Your task to perform on an android device: turn on improve location accuracy Image 0: 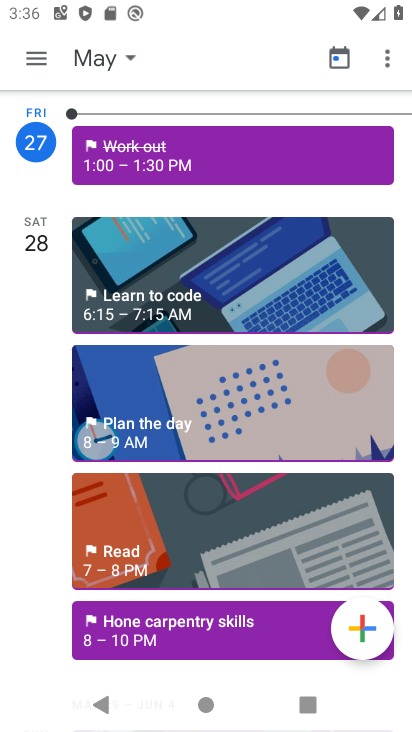
Step 0: press home button
Your task to perform on an android device: turn on improve location accuracy Image 1: 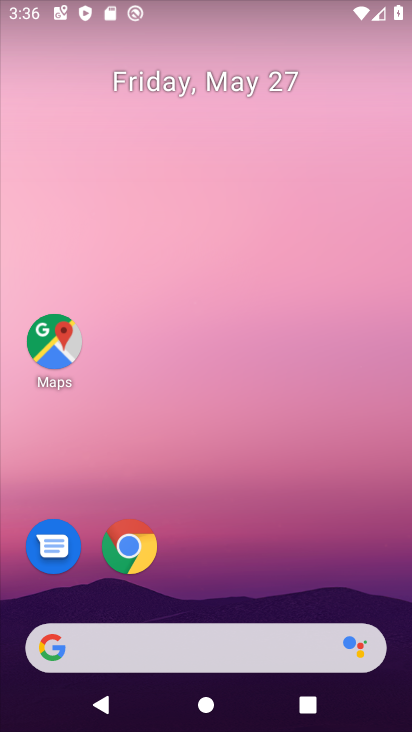
Step 1: drag from (401, 643) to (355, 115)
Your task to perform on an android device: turn on improve location accuracy Image 2: 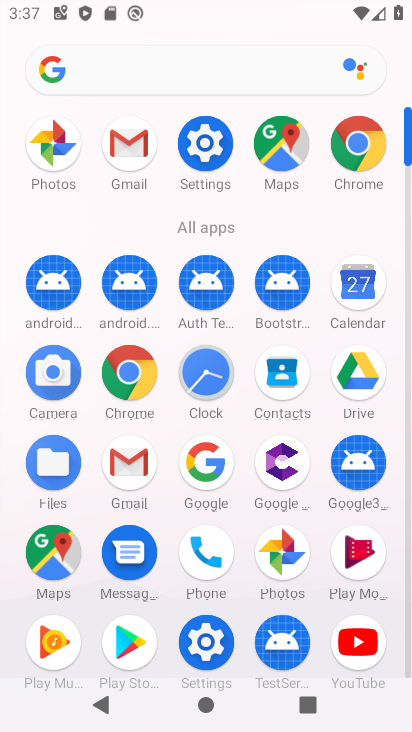
Step 2: click (203, 156)
Your task to perform on an android device: turn on improve location accuracy Image 3: 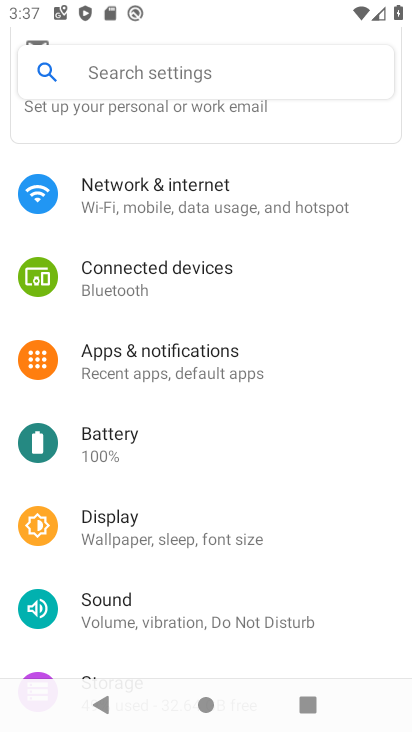
Step 3: drag from (325, 553) to (335, 285)
Your task to perform on an android device: turn on improve location accuracy Image 4: 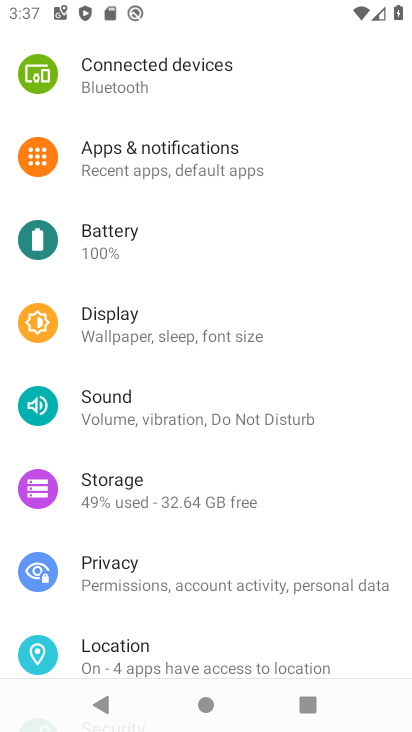
Step 4: drag from (364, 219) to (353, 451)
Your task to perform on an android device: turn on improve location accuracy Image 5: 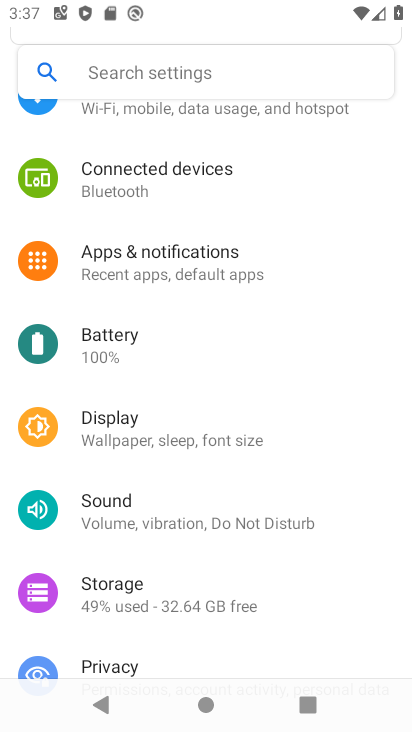
Step 5: drag from (260, 653) to (298, 322)
Your task to perform on an android device: turn on improve location accuracy Image 6: 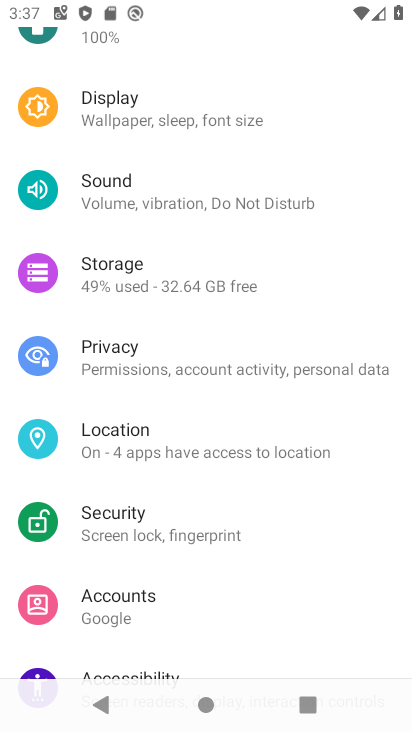
Step 6: click (99, 430)
Your task to perform on an android device: turn on improve location accuracy Image 7: 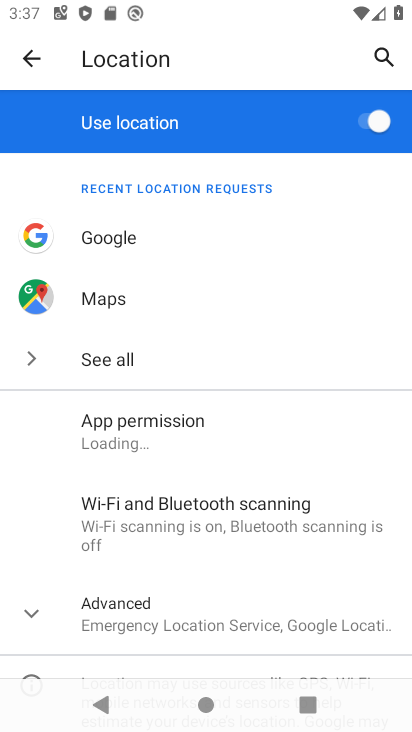
Step 7: drag from (307, 584) to (316, 309)
Your task to perform on an android device: turn on improve location accuracy Image 8: 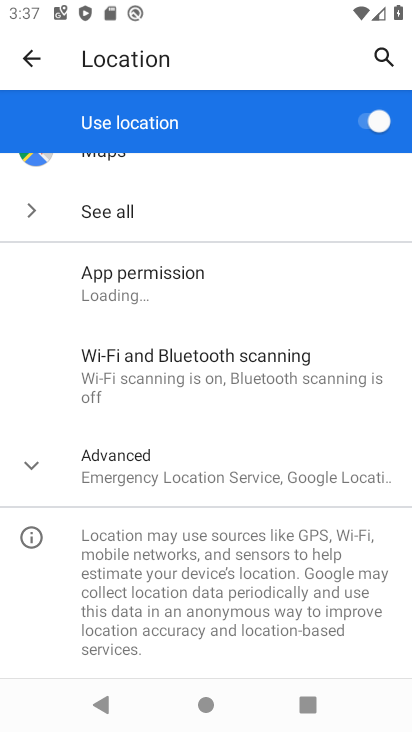
Step 8: click (30, 460)
Your task to perform on an android device: turn on improve location accuracy Image 9: 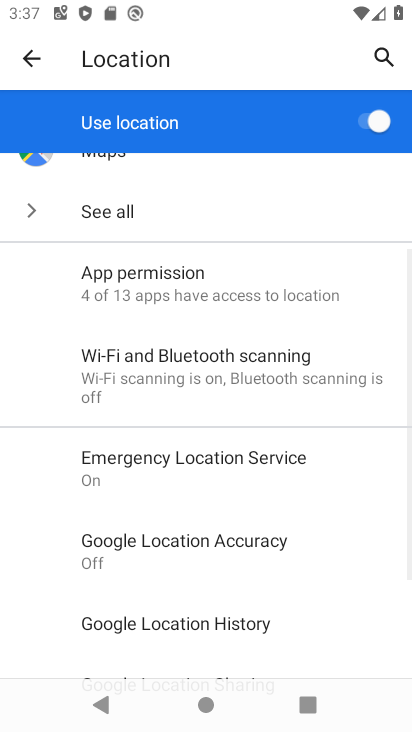
Step 9: drag from (316, 619) to (311, 341)
Your task to perform on an android device: turn on improve location accuracy Image 10: 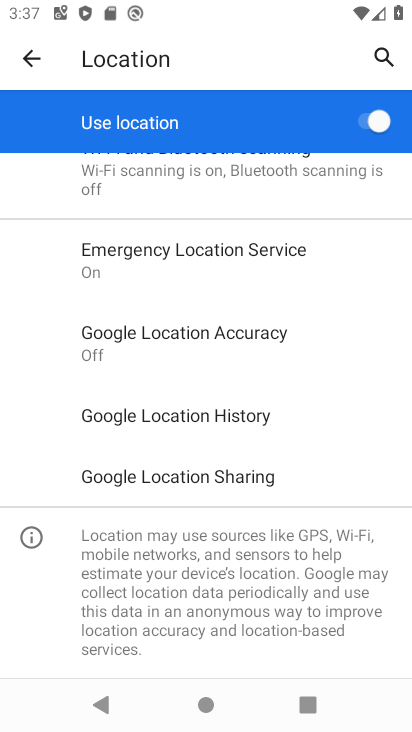
Step 10: click (147, 330)
Your task to perform on an android device: turn on improve location accuracy Image 11: 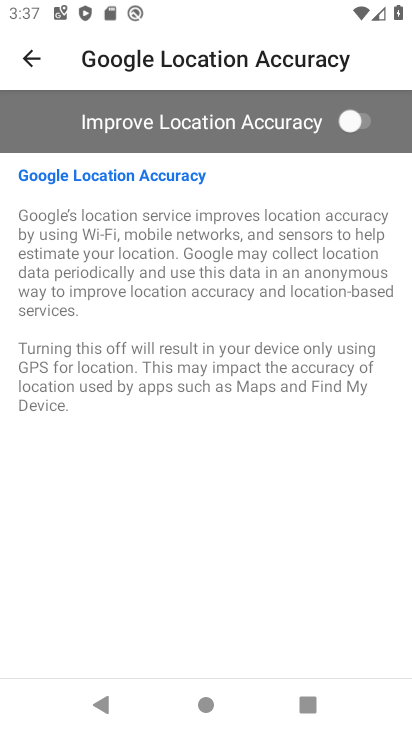
Step 11: click (365, 118)
Your task to perform on an android device: turn on improve location accuracy Image 12: 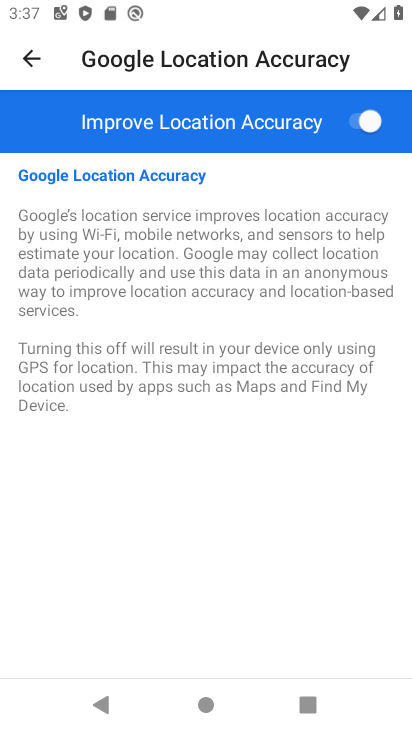
Step 12: task complete